Your task to perform on an android device: change the clock display to show seconds Image 0: 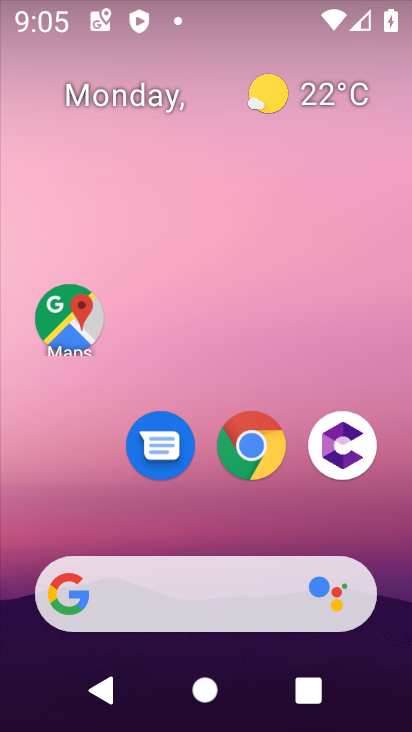
Step 0: press home button
Your task to perform on an android device: change the clock display to show seconds Image 1: 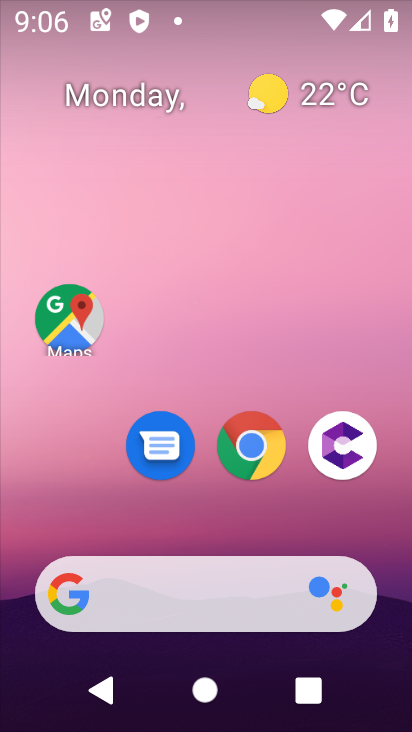
Step 1: drag from (241, 518) to (290, 163)
Your task to perform on an android device: change the clock display to show seconds Image 2: 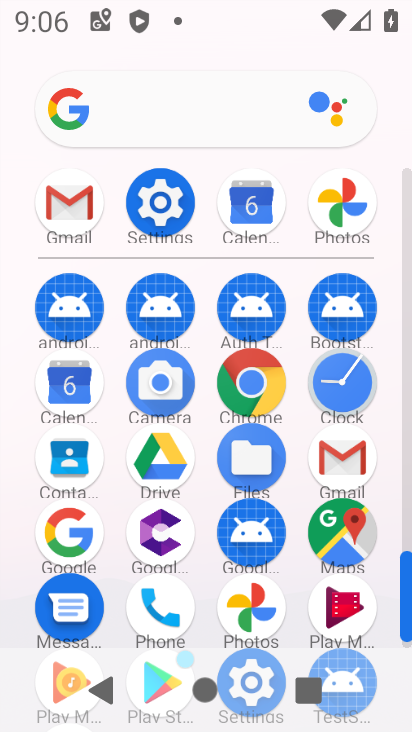
Step 2: click (339, 402)
Your task to perform on an android device: change the clock display to show seconds Image 3: 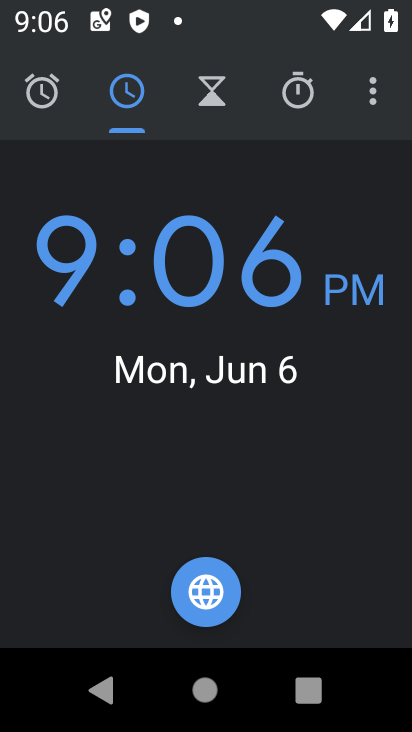
Step 3: click (373, 101)
Your task to perform on an android device: change the clock display to show seconds Image 4: 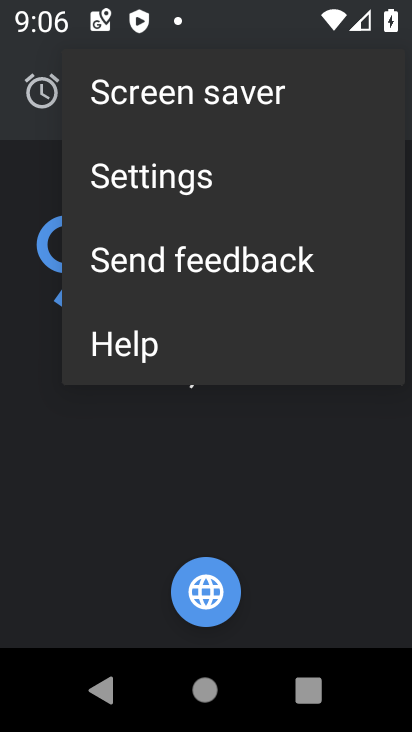
Step 4: click (147, 176)
Your task to perform on an android device: change the clock display to show seconds Image 5: 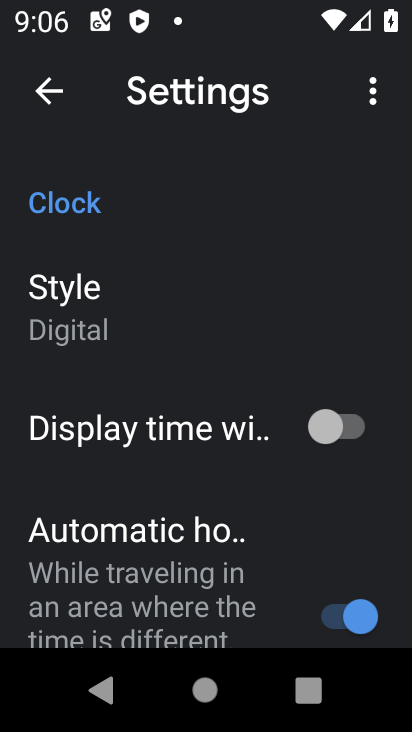
Step 5: click (324, 427)
Your task to perform on an android device: change the clock display to show seconds Image 6: 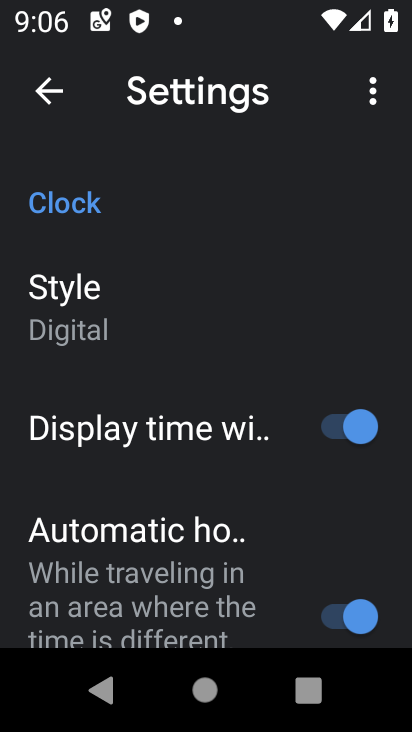
Step 6: task complete